Your task to perform on an android device: What's on my calendar for the rest of the week? Image 0: 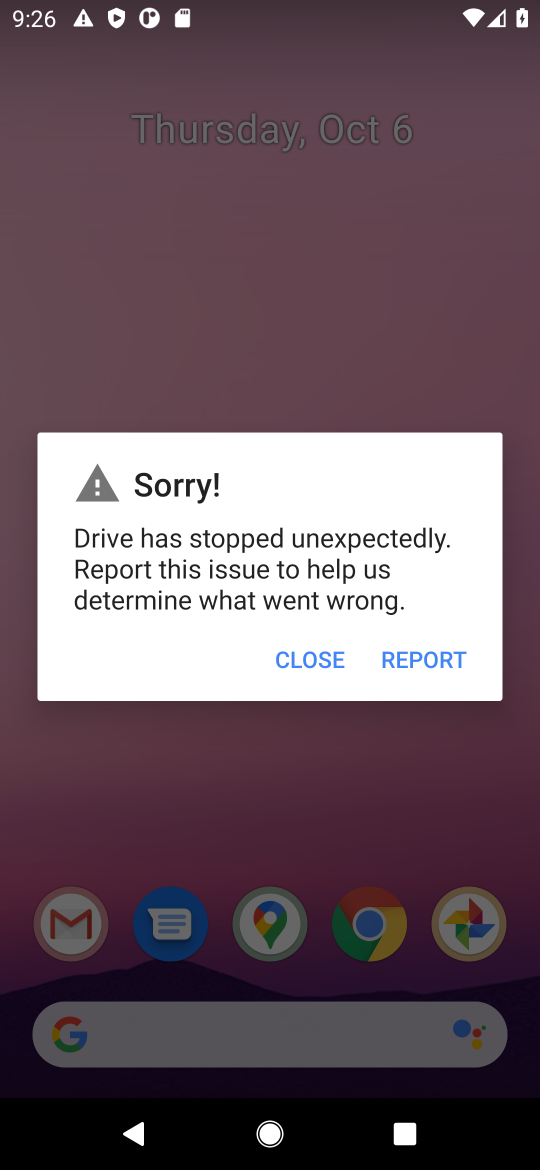
Step 0: press home button
Your task to perform on an android device: What's on my calendar for the rest of the week? Image 1: 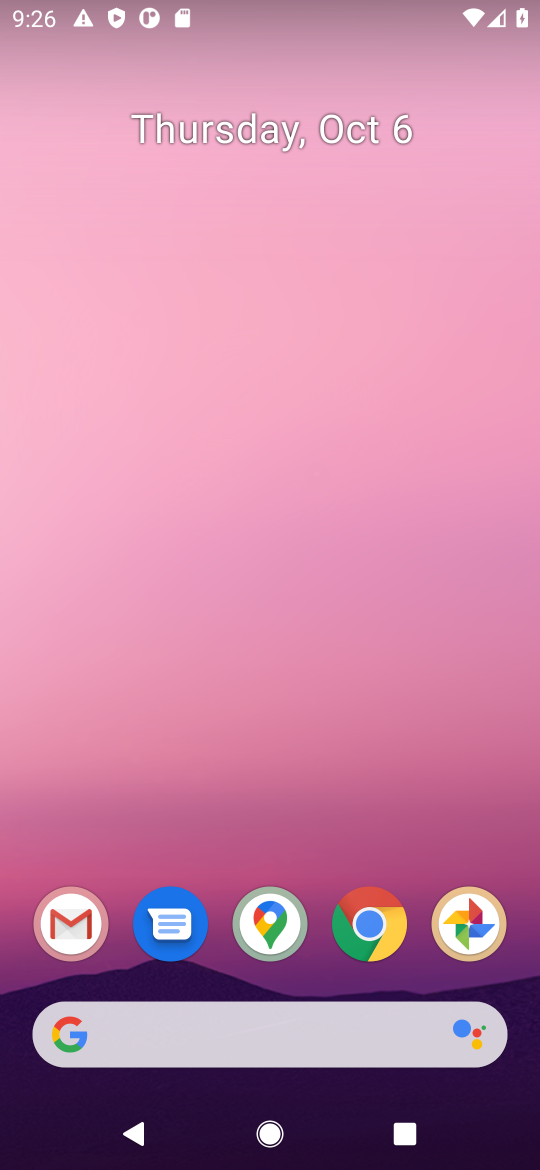
Step 1: drag from (238, 985) to (332, 195)
Your task to perform on an android device: What's on my calendar for the rest of the week? Image 2: 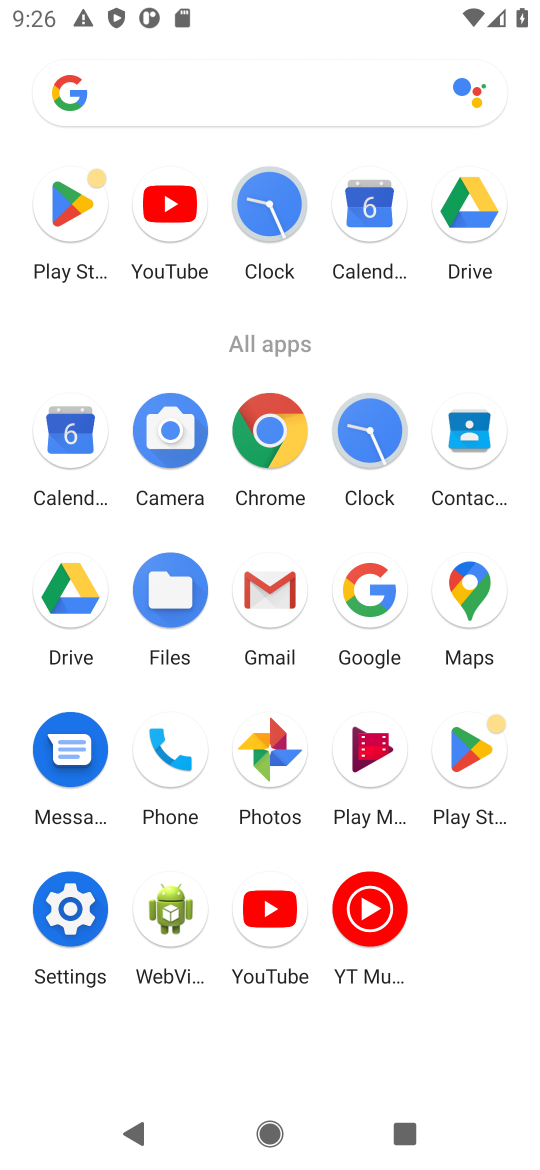
Step 2: click (82, 431)
Your task to perform on an android device: What's on my calendar for the rest of the week? Image 3: 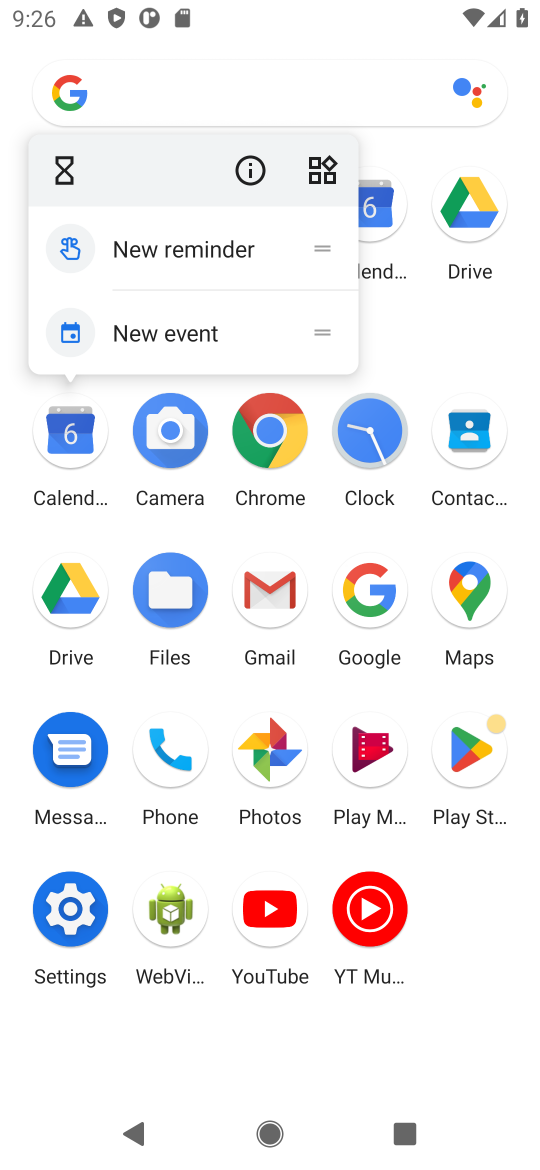
Step 3: click (57, 437)
Your task to perform on an android device: What's on my calendar for the rest of the week? Image 4: 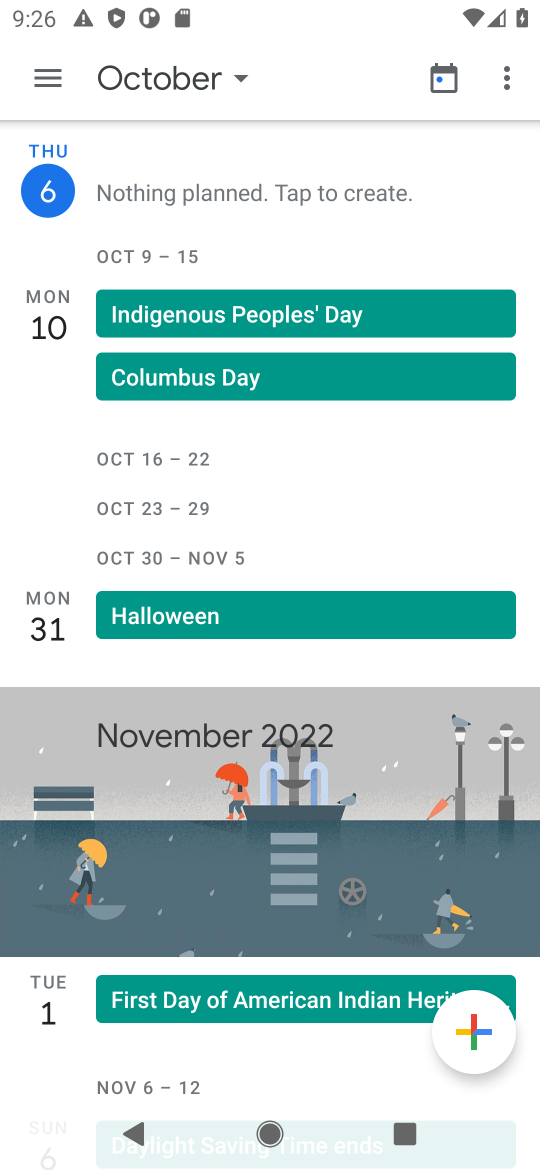
Step 4: click (159, 80)
Your task to perform on an android device: What's on my calendar for the rest of the week? Image 5: 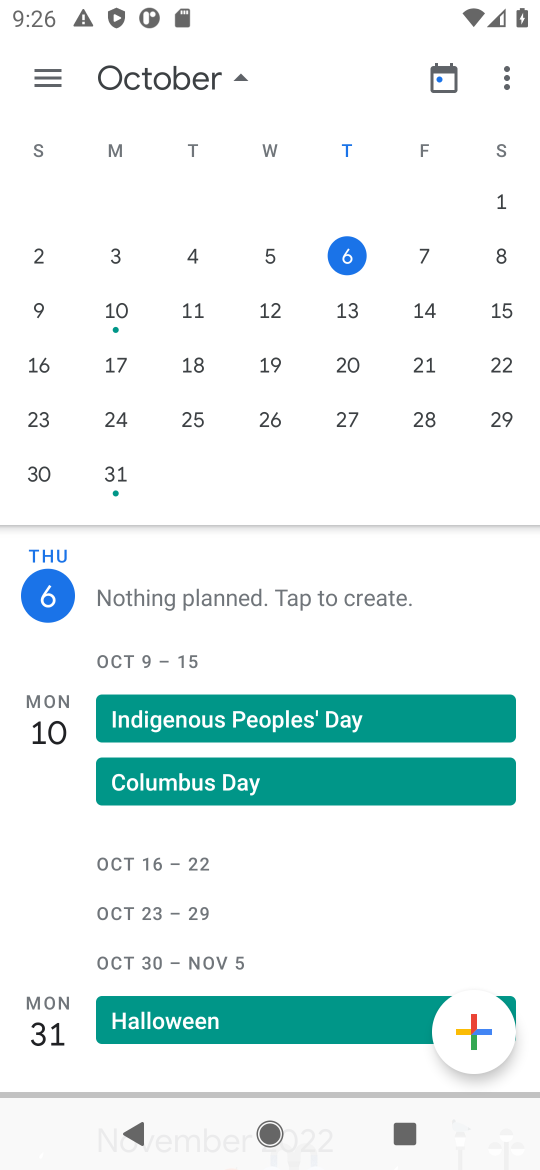
Step 5: click (30, 68)
Your task to perform on an android device: What's on my calendar for the rest of the week? Image 6: 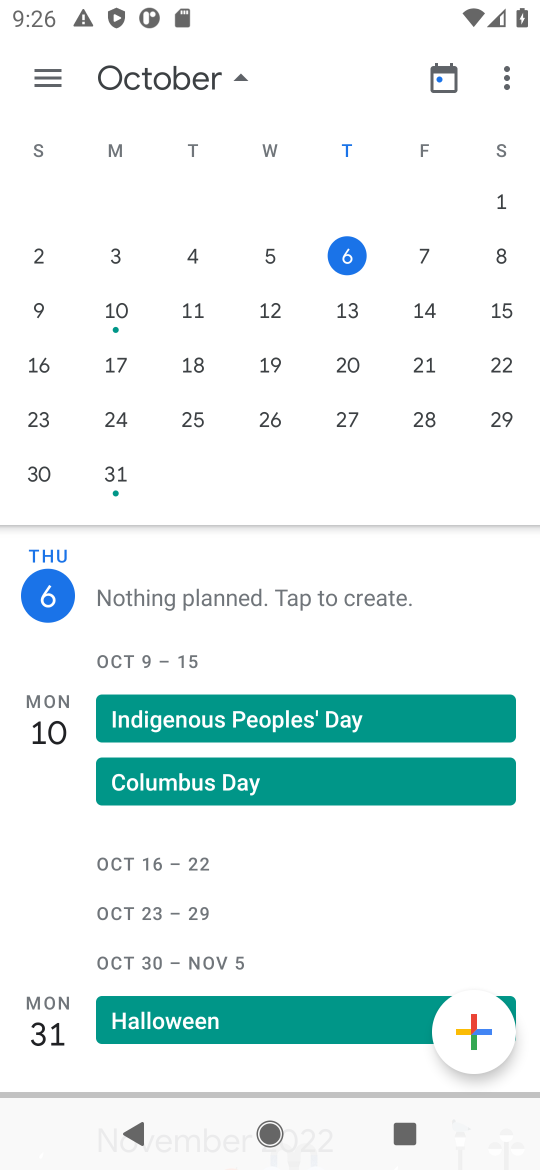
Step 6: click (49, 76)
Your task to perform on an android device: What's on my calendar for the rest of the week? Image 7: 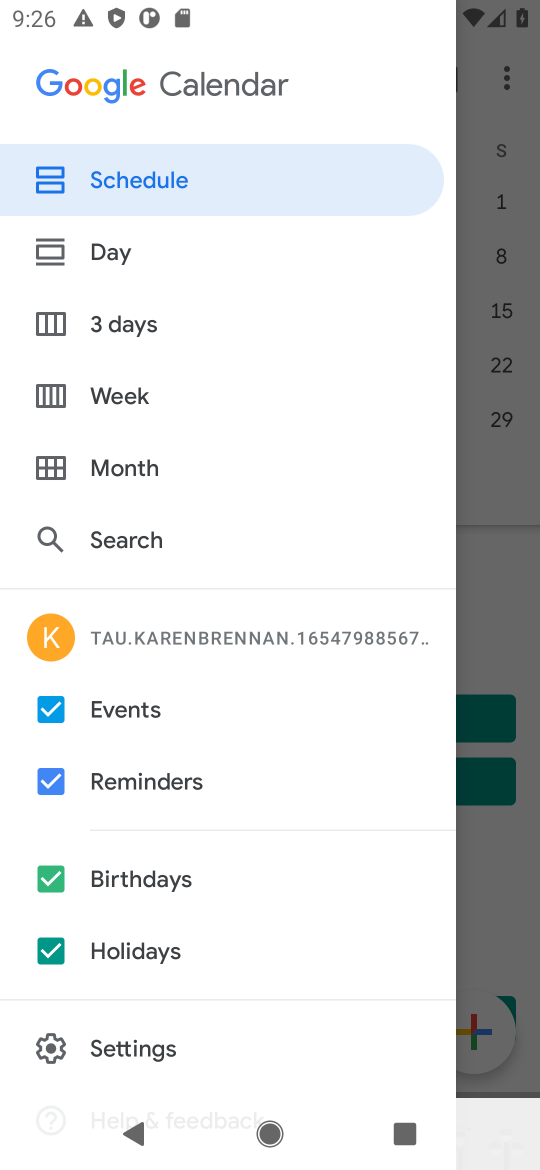
Step 7: click (135, 390)
Your task to perform on an android device: What's on my calendar for the rest of the week? Image 8: 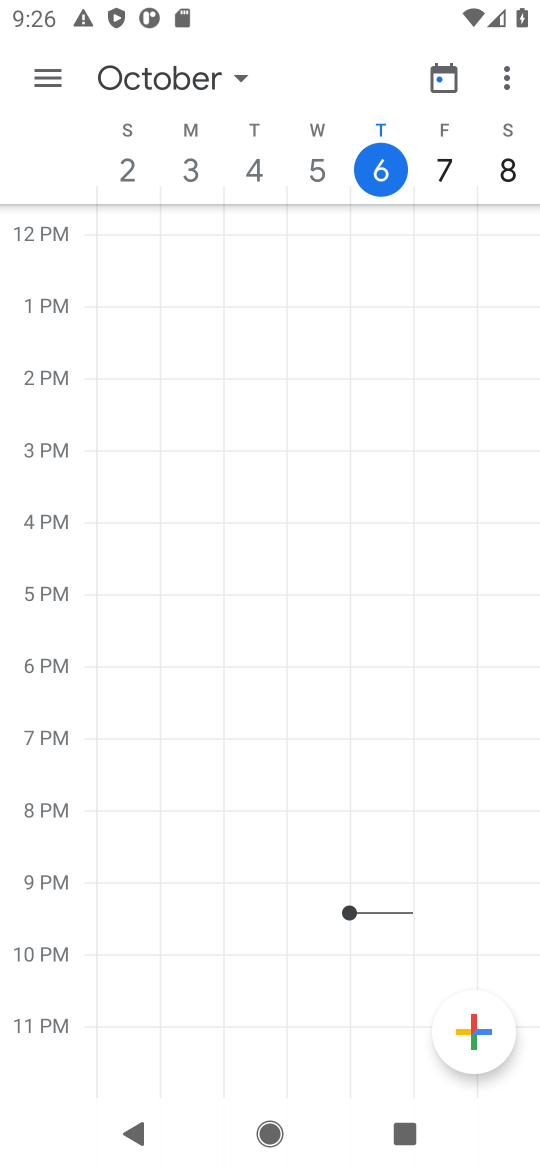
Step 8: drag from (122, 989) to (297, 171)
Your task to perform on an android device: What's on my calendar for the rest of the week? Image 9: 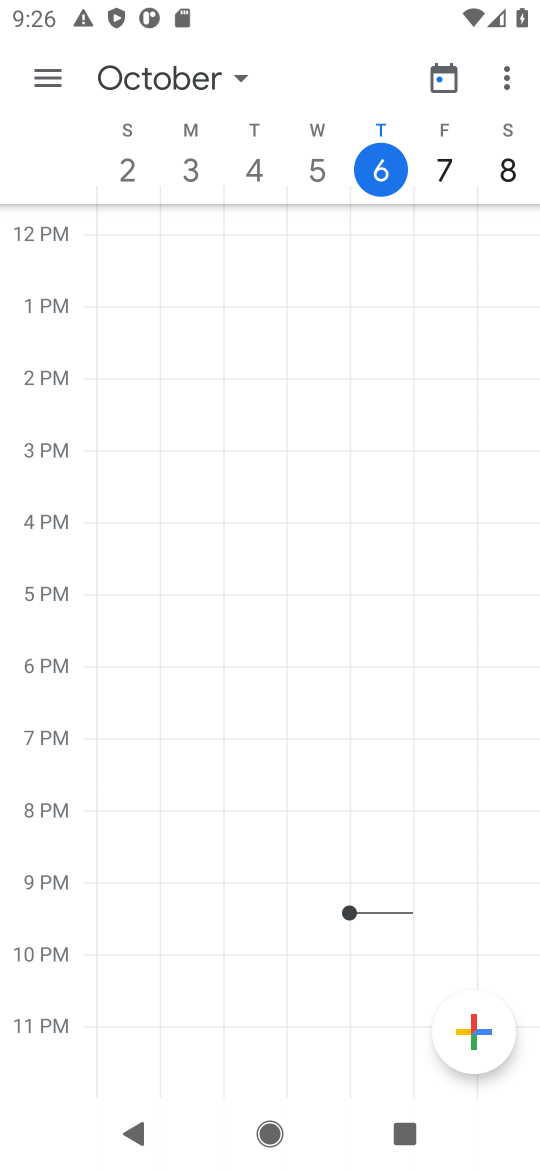
Step 9: drag from (415, 625) to (417, 2)
Your task to perform on an android device: What's on my calendar for the rest of the week? Image 10: 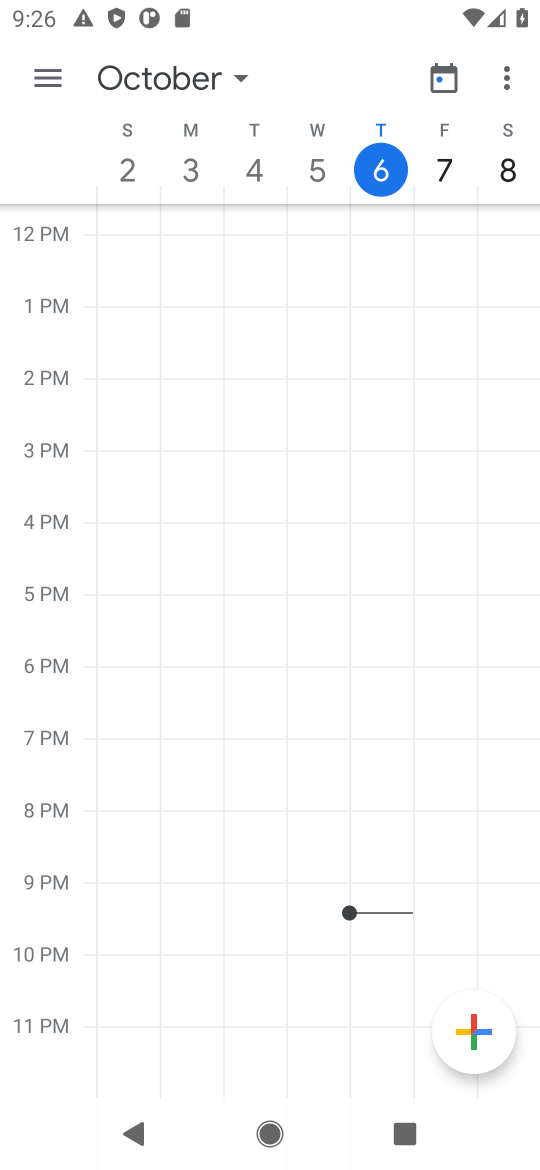
Step 10: click (49, 74)
Your task to perform on an android device: What's on my calendar for the rest of the week? Image 11: 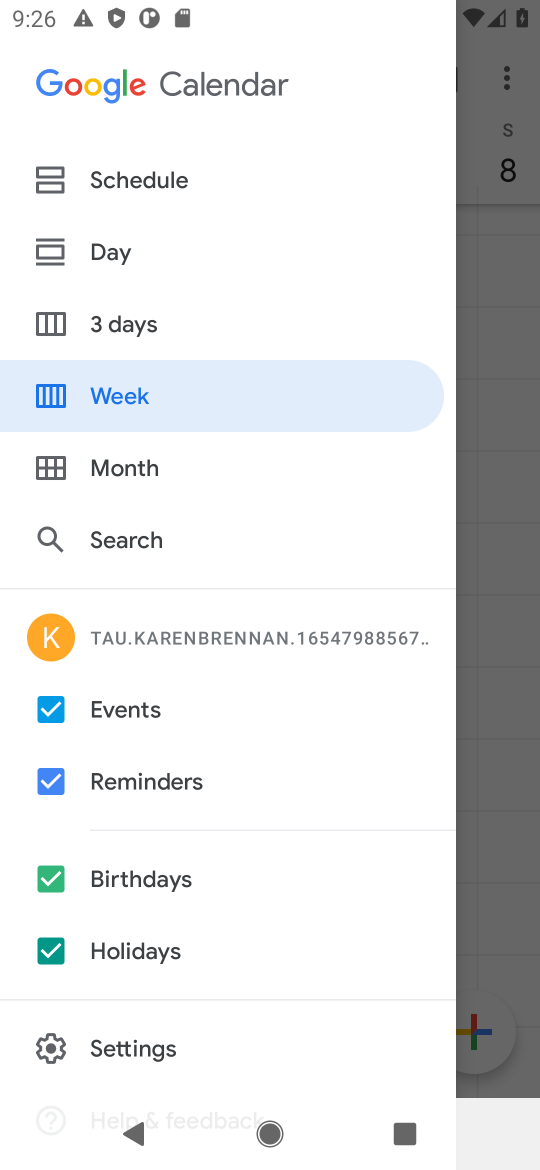
Step 11: click (143, 185)
Your task to perform on an android device: What's on my calendar for the rest of the week? Image 12: 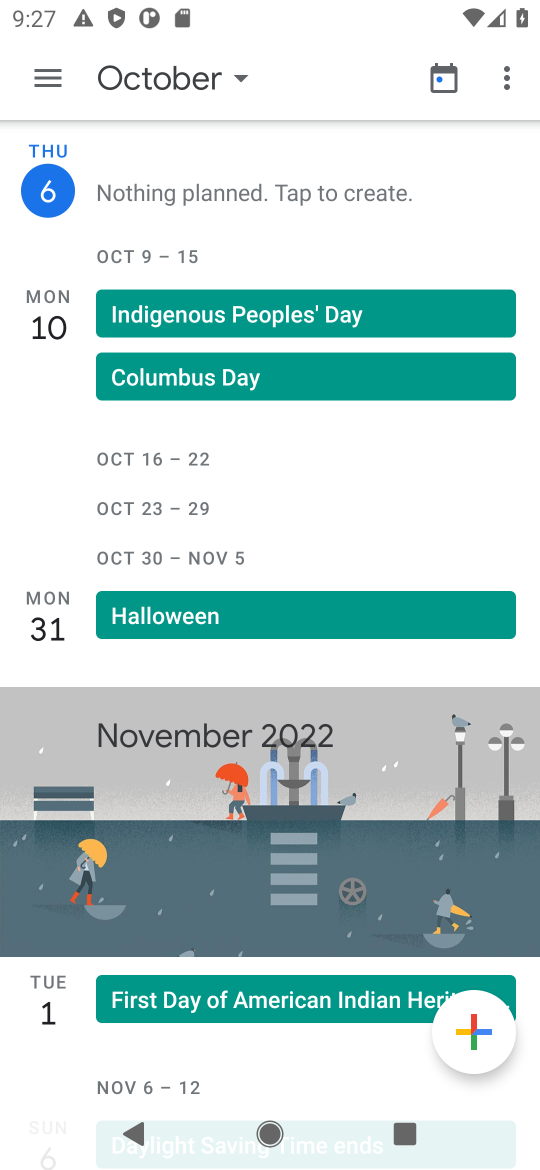
Step 12: task complete